Your task to perform on an android device: Open ESPN.com Image 0: 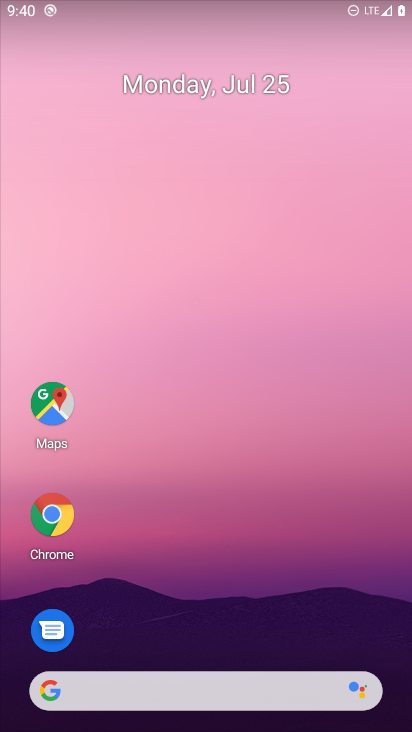
Step 0: click (149, 695)
Your task to perform on an android device: Open ESPN.com Image 1: 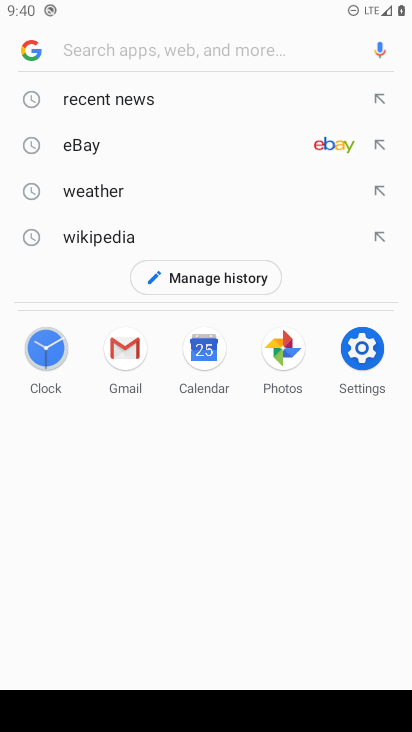
Step 1: click (82, 55)
Your task to perform on an android device: Open ESPN.com Image 2: 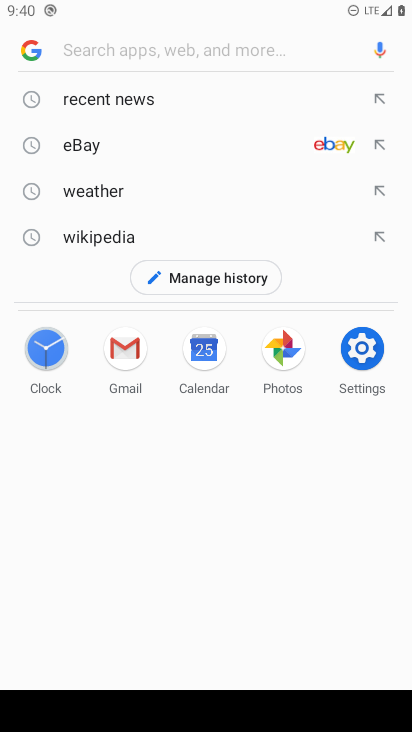
Step 2: type "ESPN.com"
Your task to perform on an android device: Open ESPN.com Image 3: 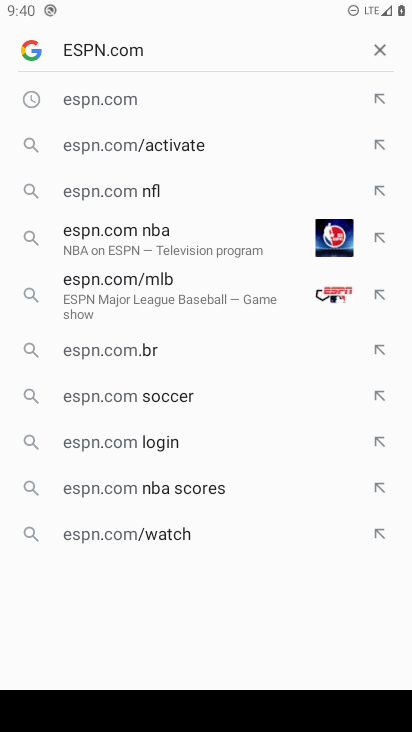
Step 3: type ""
Your task to perform on an android device: Open ESPN.com Image 4: 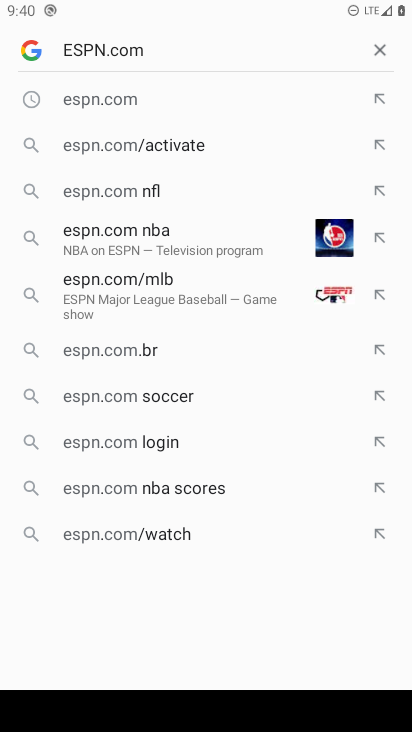
Step 4: click (88, 100)
Your task to perform on an android device: Open ESPN.com Image 5: 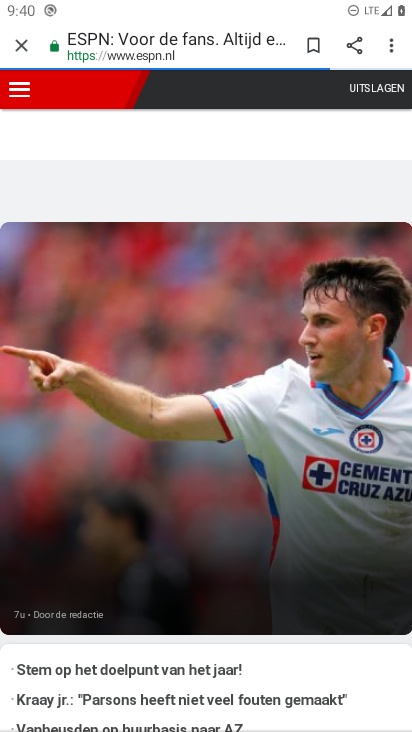
Step 5: task complete